Your task to perform on an android device: Open ESPN.com Image 0: 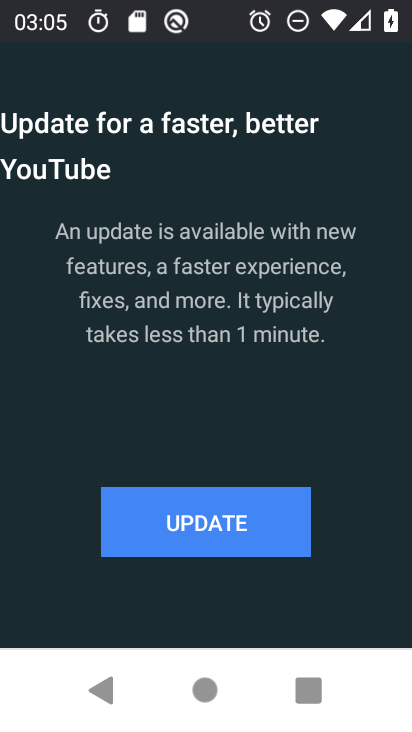
Step 0: press home button
Your task to perform on an android device: Open ESPN.com Image 1: 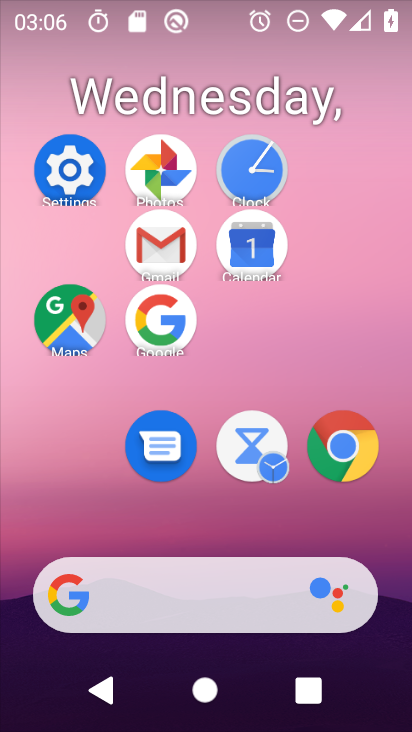
Step 1: click (350, 456)
Your task to perform on an android device: Open ESPN.com Image 2: 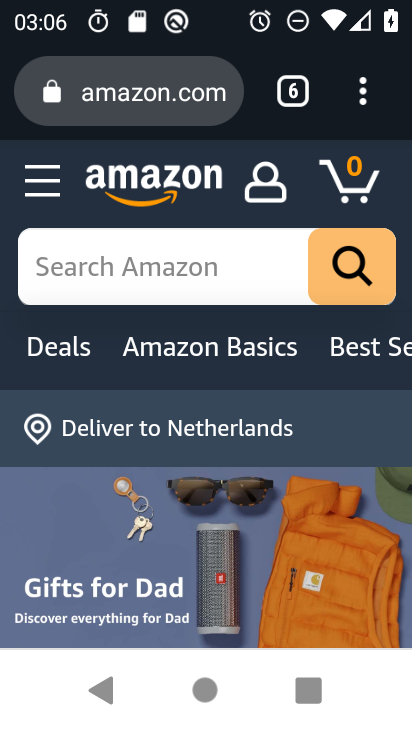
Step 2: click (290, 108)
Your task to perform on an android device: Open ESPN.com Image 3: 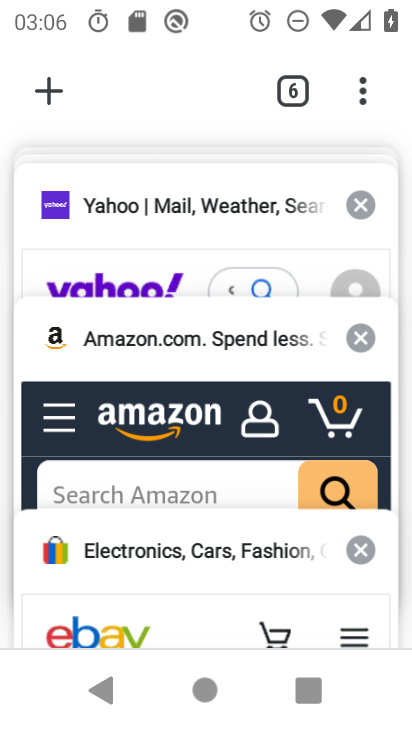
Step 3: drag from (210, 221) to (185, 553)
Your task to perform on an android device: Open ESPN.com Image 4: 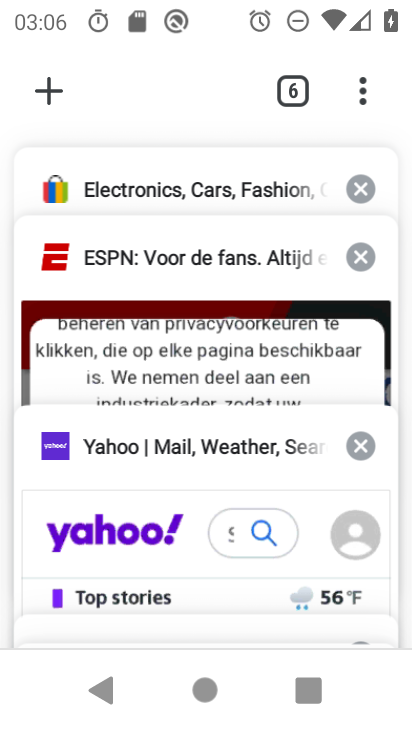
Step 4: click (150, 270)
Your task to perform on an android device: Open ESPN.com Image 5: 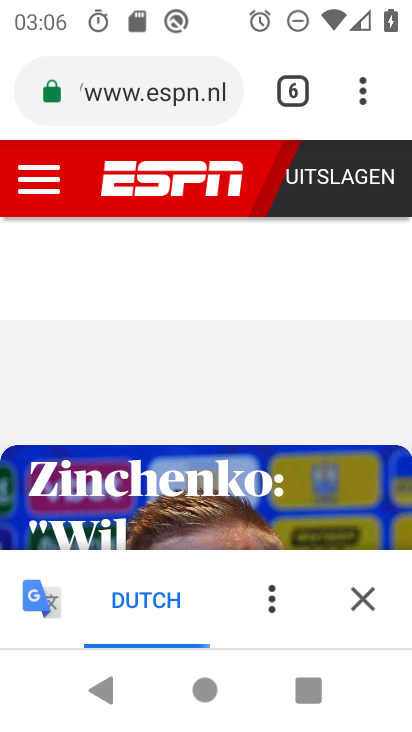
Step 5: task complete